Your task to perform on an android device: turn off javascript in the chrome app Image 0: 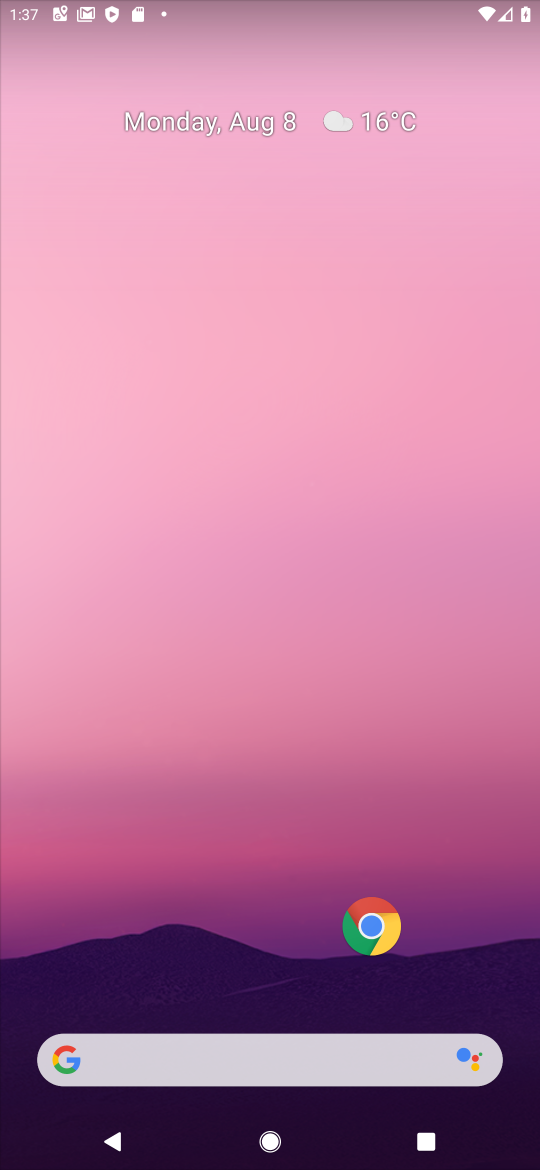
Step 0: drag from (276, 1004) to (326, 131)
Your task to perform on an android device: turn off javascript in the chrome app Image 1: 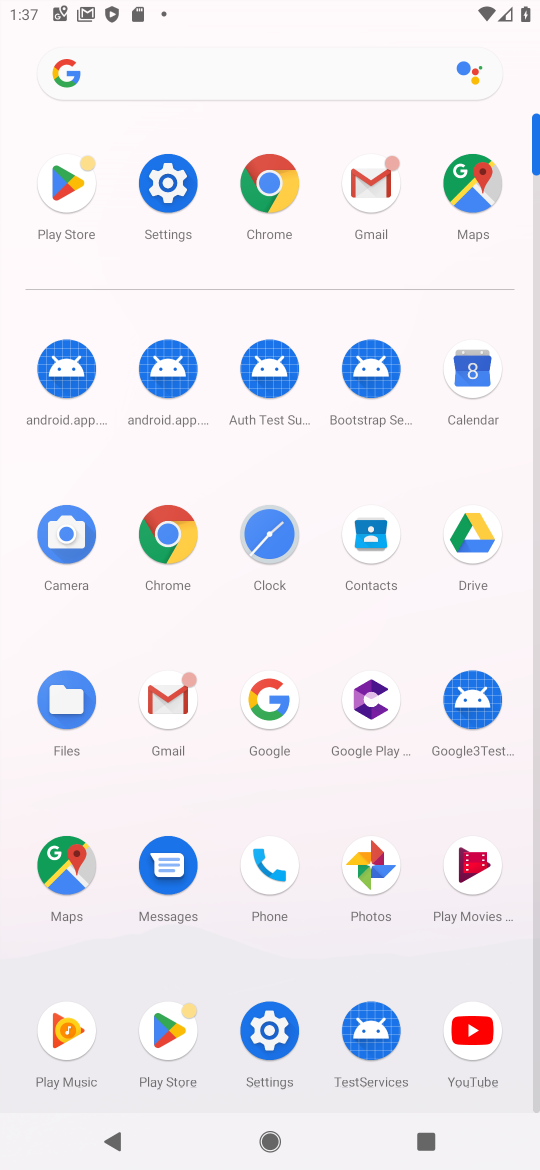
Step 1: click (264, 192)
Your task to perform on an android device: turn off javascript in the chrome app Image 2: 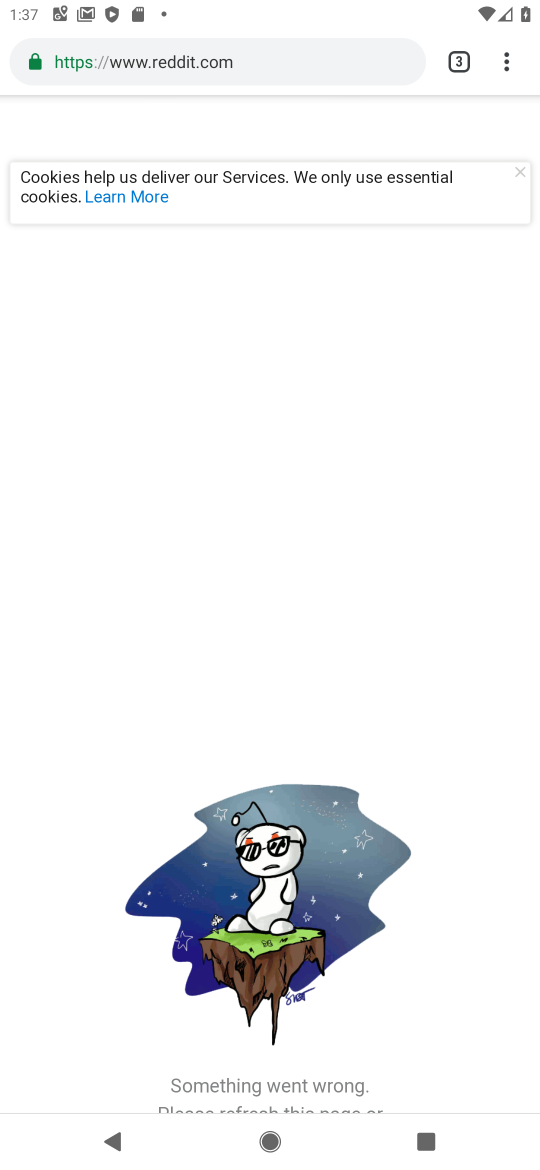
Step 2: click (525, 57)
Your task to perform on an android device: turn off javascript in the chrome app Image 3: 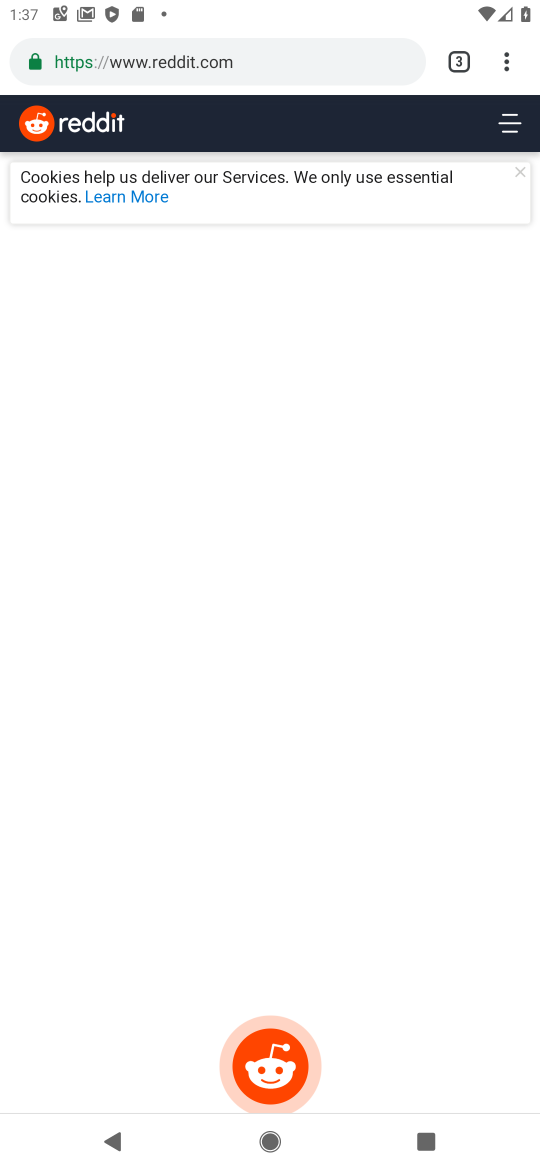
Step 3: click (525, 57)
Your task to perform on an android device: turn off javascript in the chrome app Image 4: 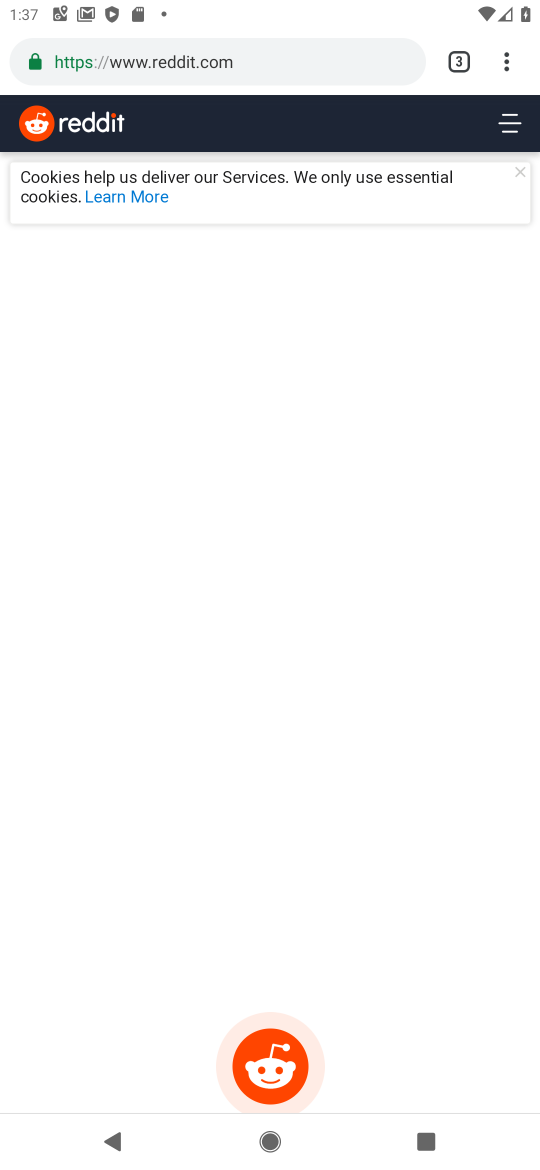
Step 4: click (505, 60)
Your task to perform on an android device: turn off javascript in the chrome app Image 5: 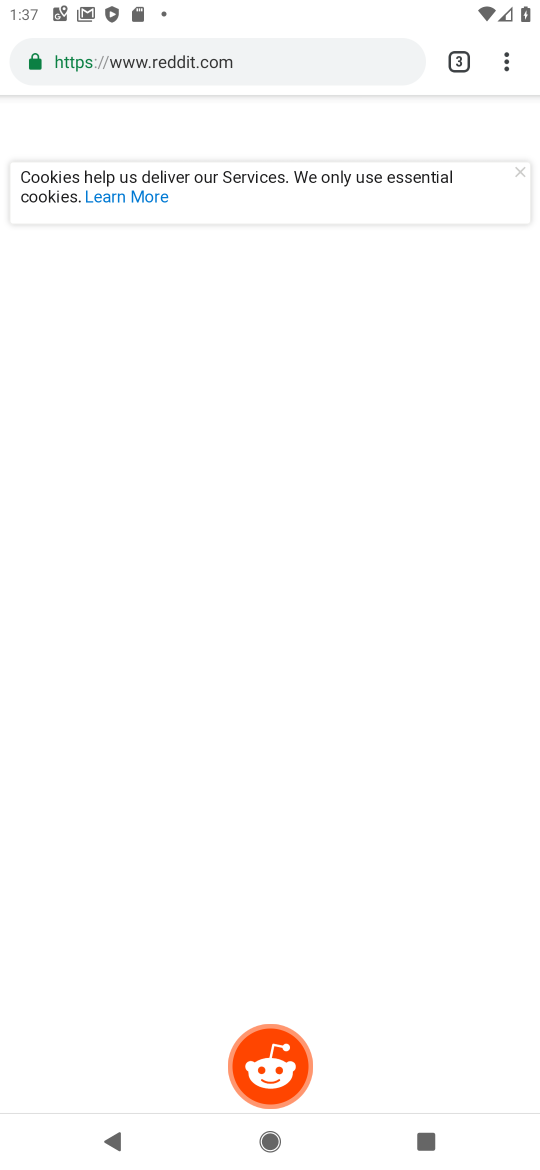
Step 5: click (505, 60)
Your task to perform on an android device: turn off javascript in the chrome app Image 6: 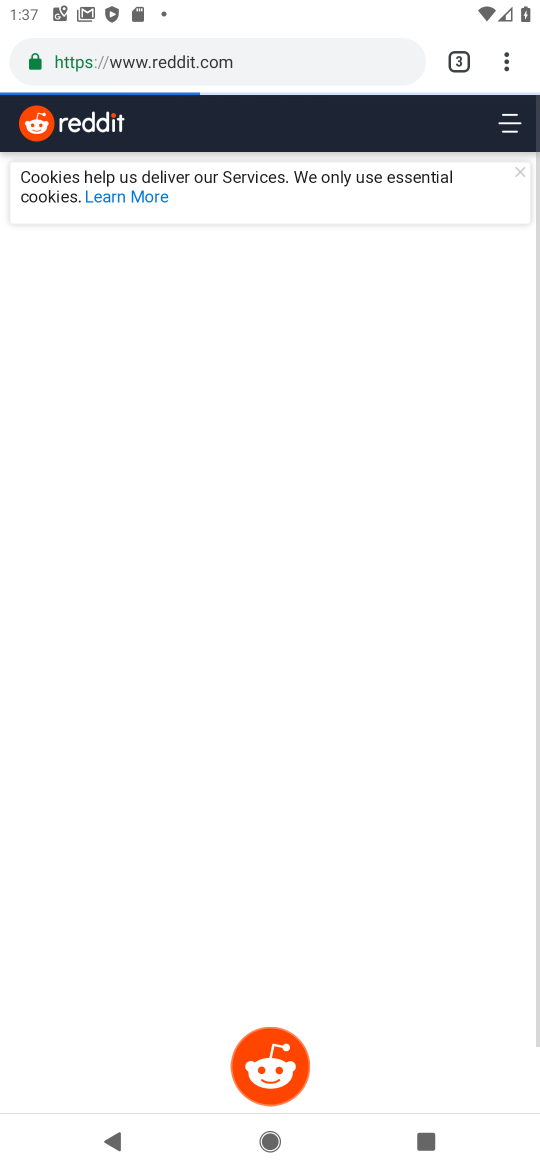
Step 6: click (505, 65)
Your task to perform on an android device: turn off javascript in the chrome app Image 7: 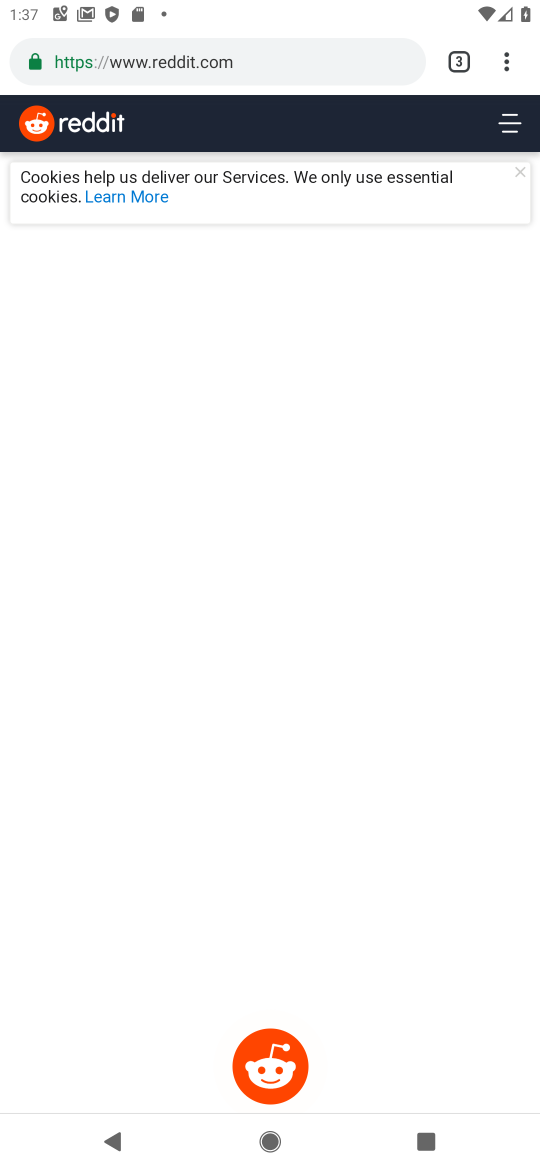
Step 7: click (505, 65)
Your task to perform on an android device: turn off javascript in the chrome app Image 8: 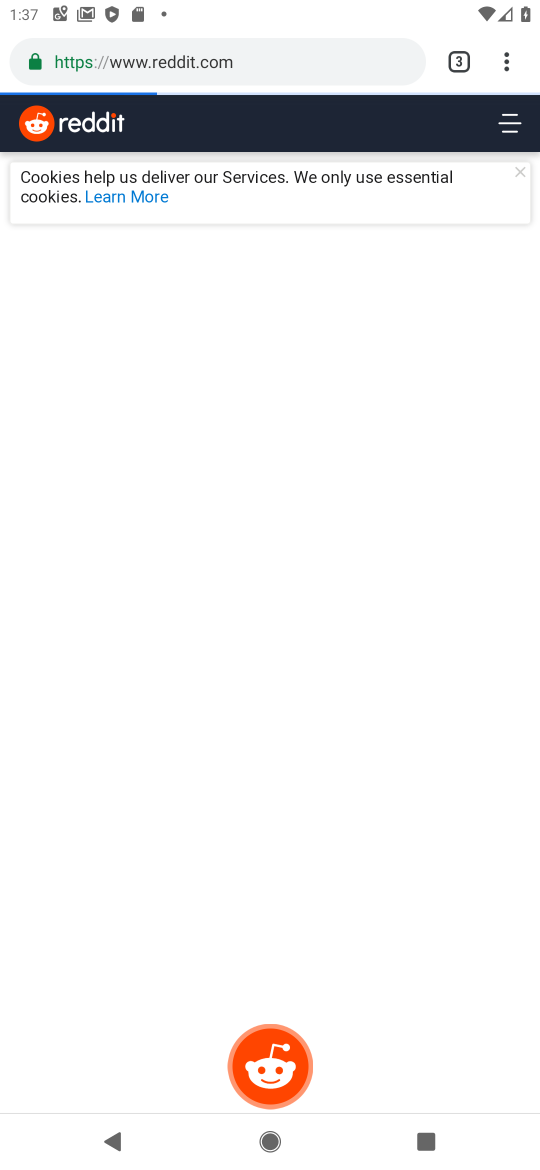
Step 8: click (505, 65)
Your task to perform on an android device: turn off javascript in the chrome app Image 9: 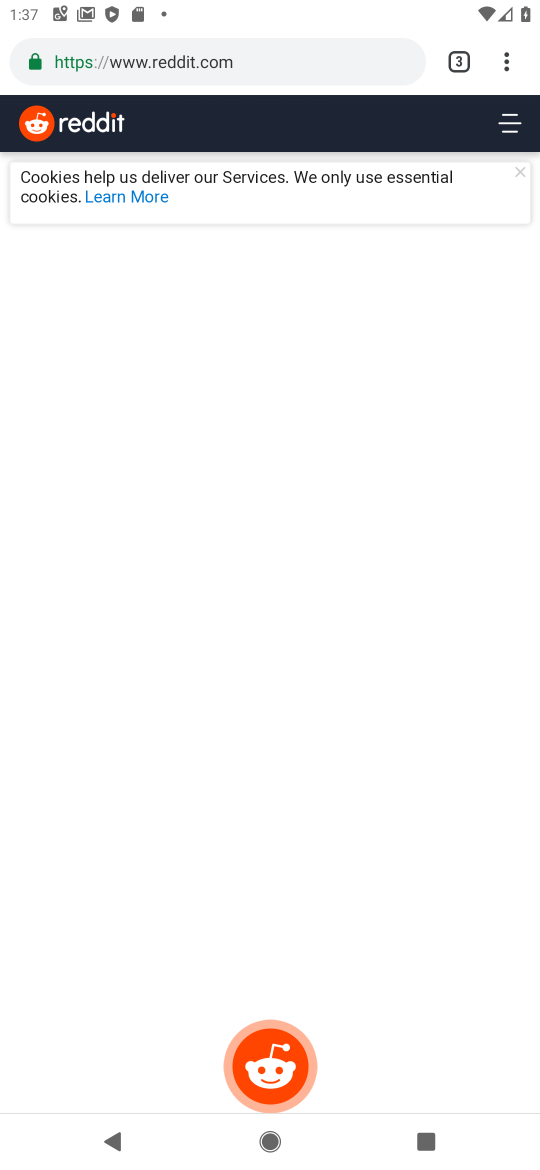
Step 9: click (511, 49)
Your task to perform on an android device: turn off javascript in the chrome app Image 10: 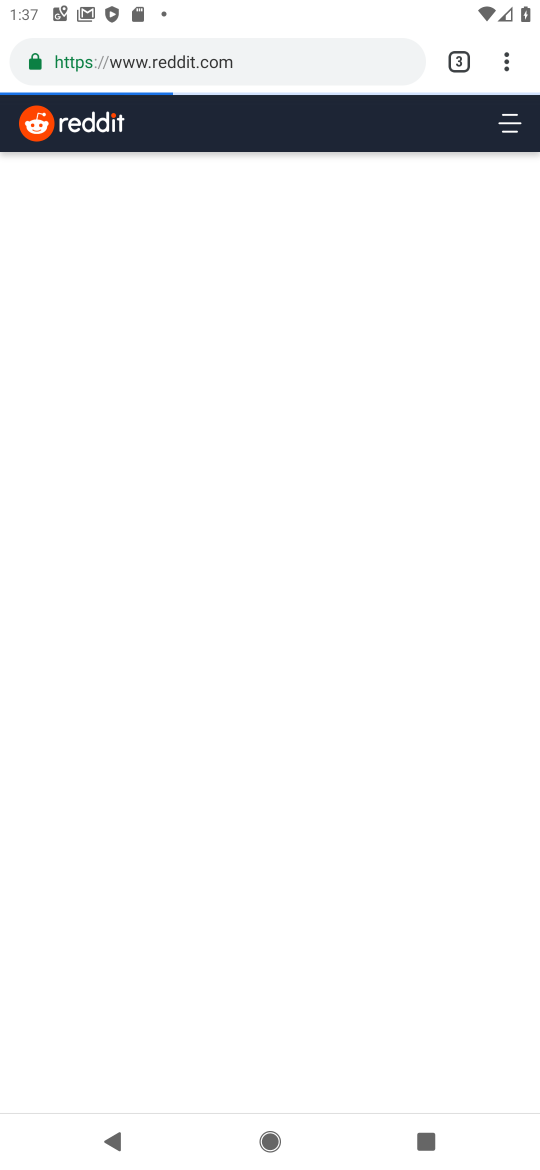
Step 10: click (518, 59)
Your task to perform on an android device: turn off javascript in the chrome app Image 11: 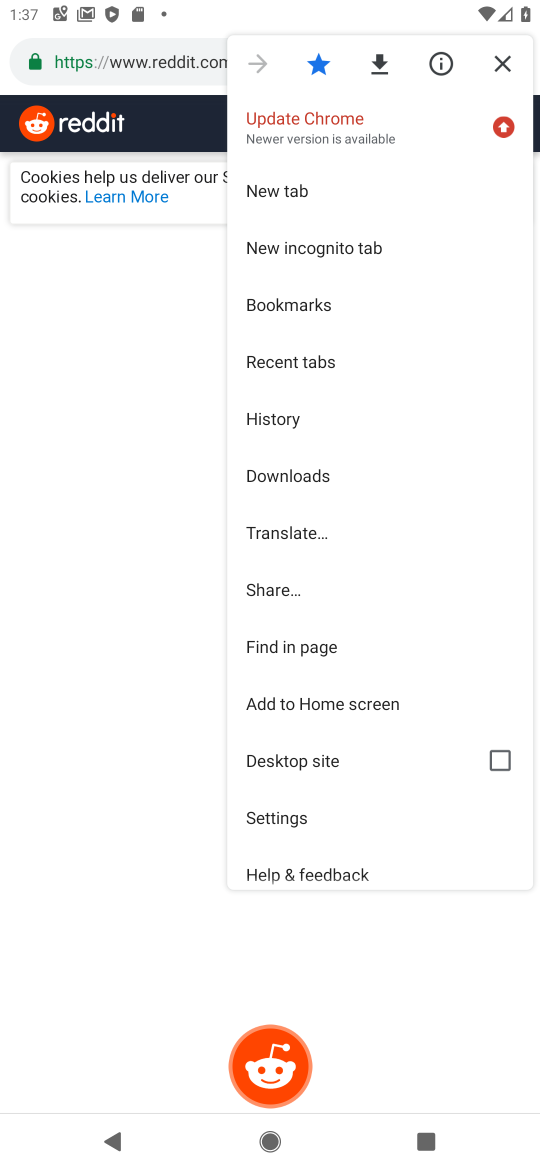
Step 11: click (305, 809)
Your task to perform on an android device: turn off javascript in the chrome app Image 12: 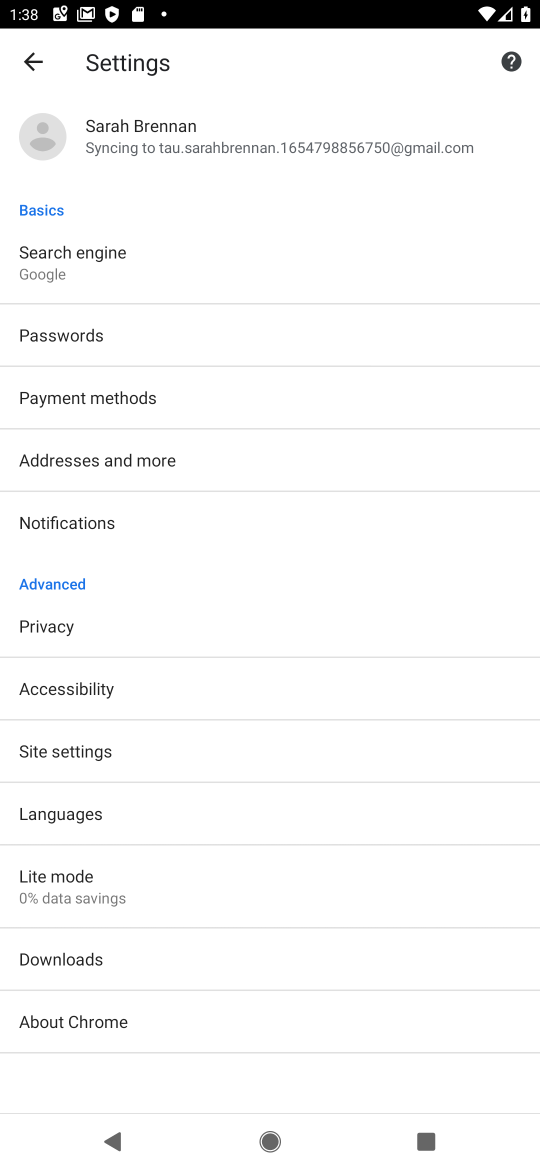
Step 12: click (163, 743)
Your task to perform on an android device: turn off javascript in the chrome app Image 13: 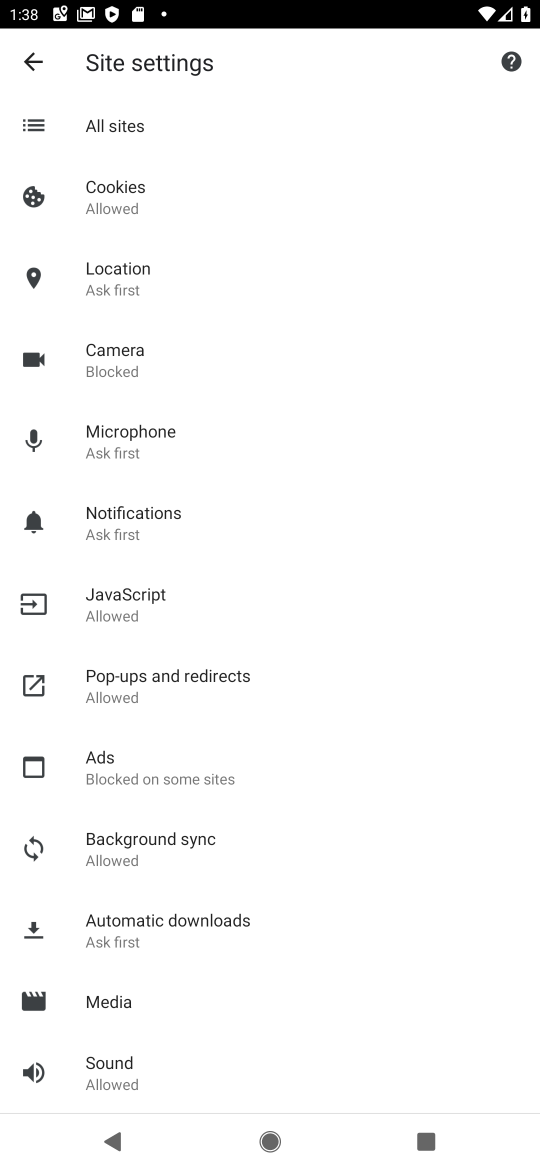
Step 13: click (158, 593)
Your task to perform on an android device: turn off javascript in the chrome app Image 14: 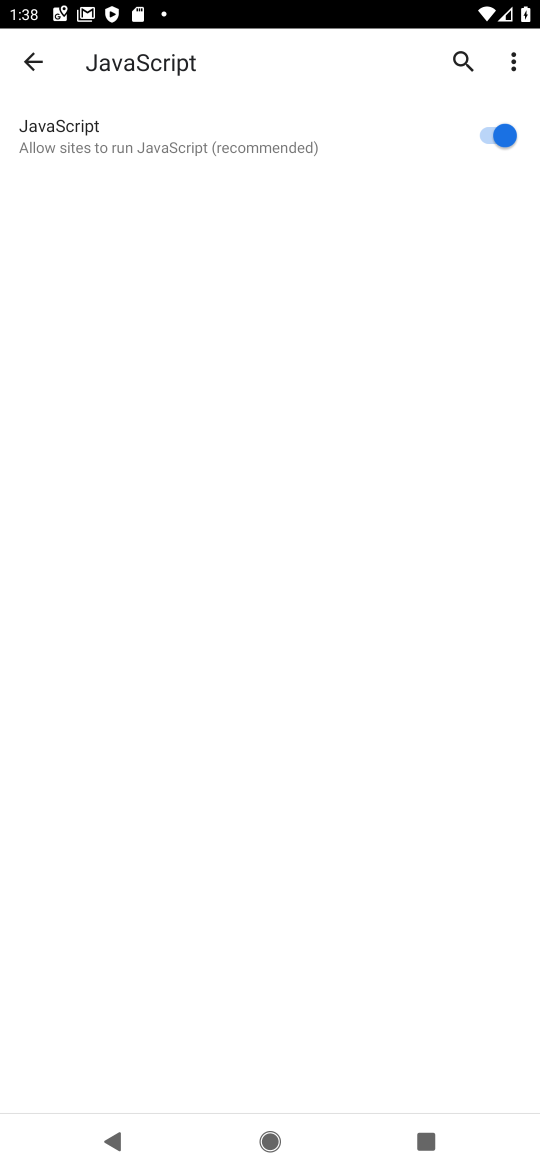
Step 14: click (480, 134)
Your task to perform on an android device: turn off javascript in the chrome app Image 15: 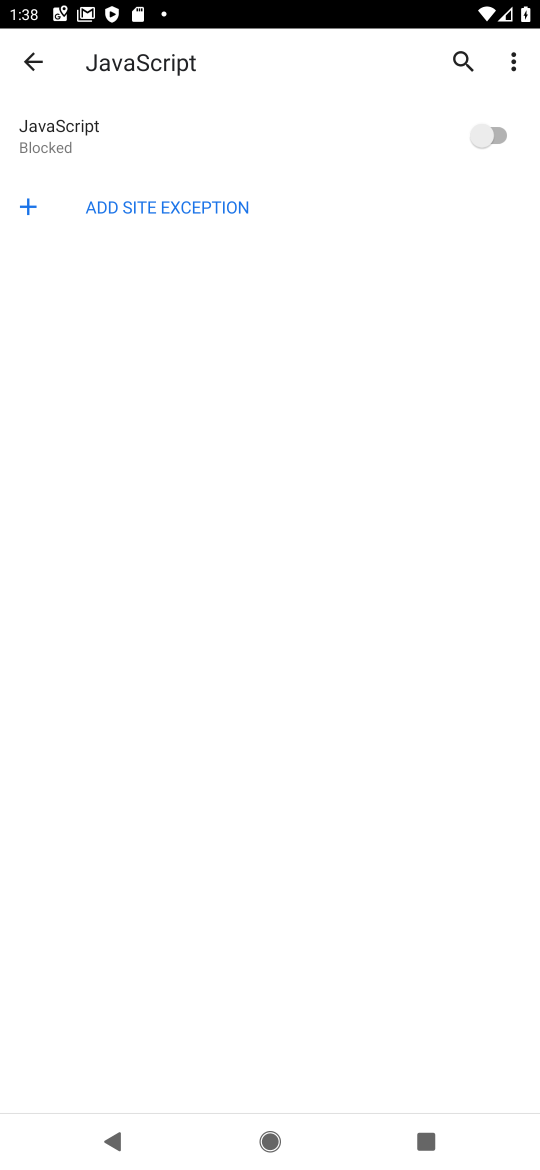
Step 15: task complete